Your task to perform on an android device: Go to Wikipedia Image 0: 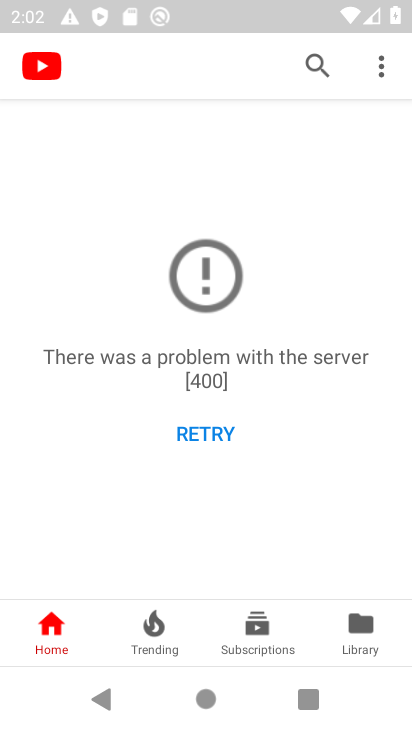
Step 0: press home button
Your task to perform on an android device: Go to Wikipedia Image 1: 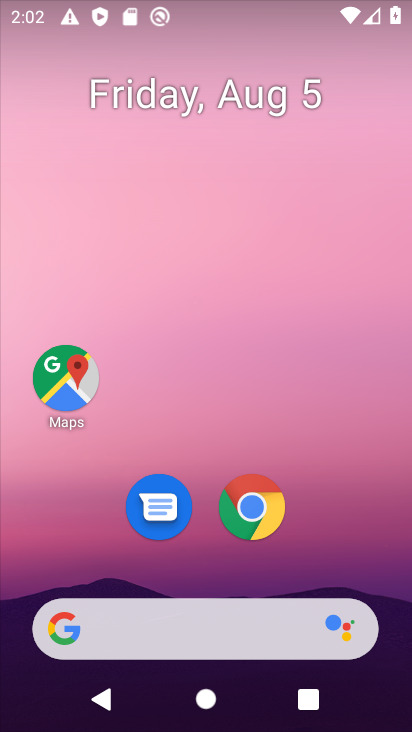
Step 1: click (252, 507)
Your task to perform on an android device: Go to Wikipedia Image 2: 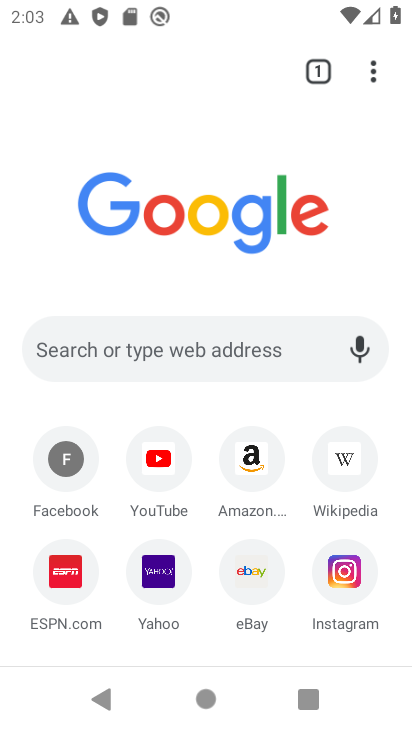
Step 2: click (333, 470)
Your task to perform on an android device: Go to Wikipedia Image 3: 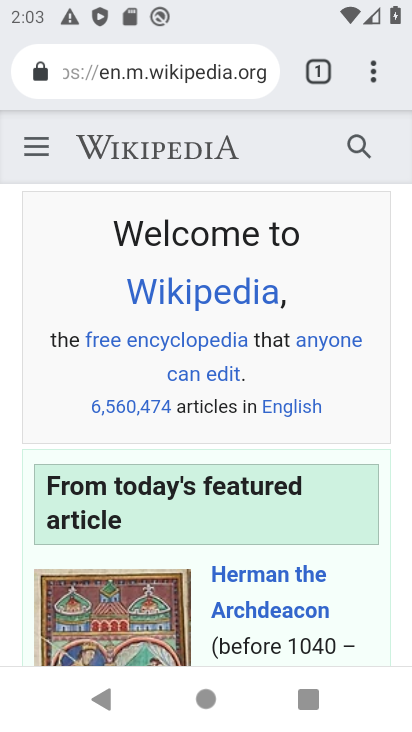
Step 3: task complete